Your task to perform on an android device: When is my next appointment? Image 0: 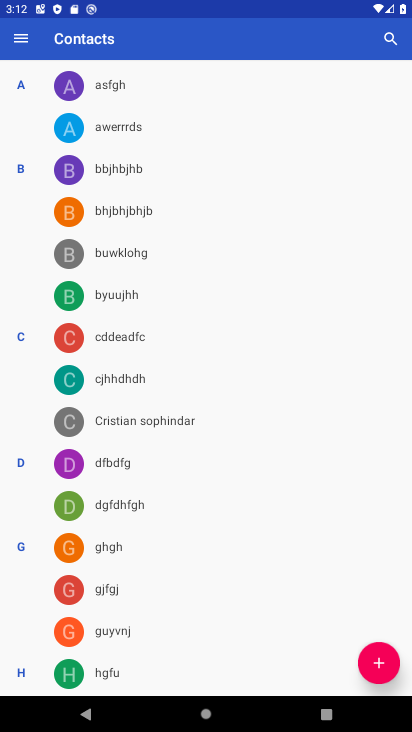
Step 0: press home button
Your task to perform on an android device: When is my next appointment? Image 1: 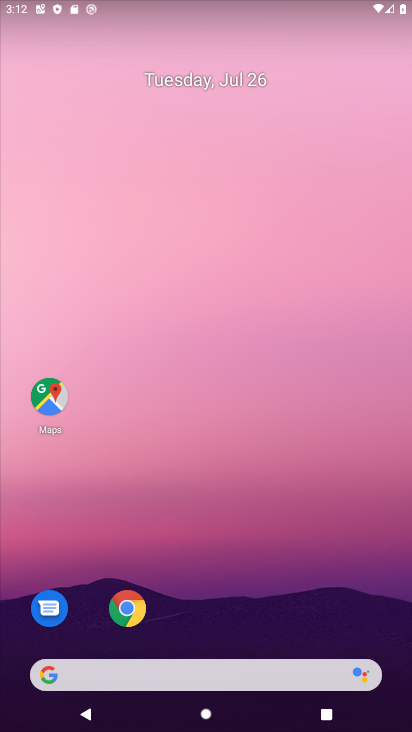
Step 1: drag from (269, 591) to (307, 222)
Your task to perform on an android device: When is my next appointment? Image 2: 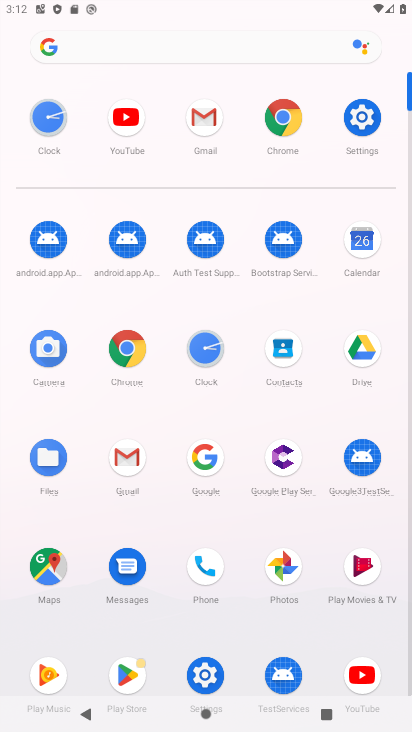
Step 2: click (358, 247)
Your task to perform on an android device: When is my next appointment? Image 3: 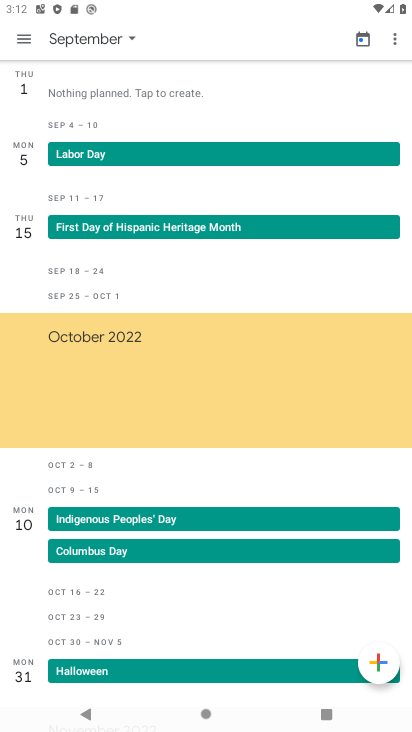
Step 3: task complete